Your task to perform on an android device: turn on javascript in the chrome app Image 0: 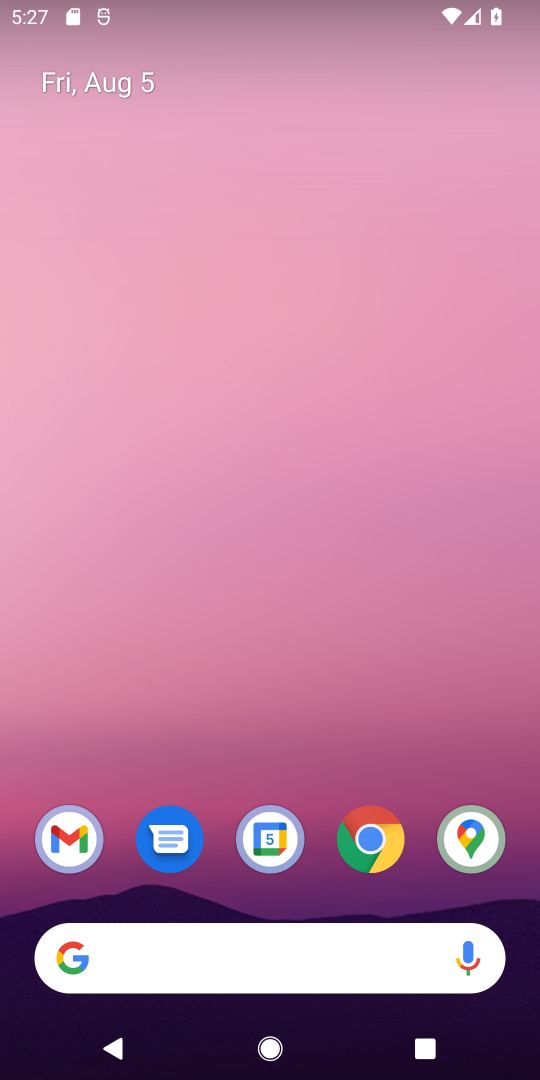
Step 0: click (368, 854)
Your task to perform on an android device: turn on javascript in the chrome app Image 1: 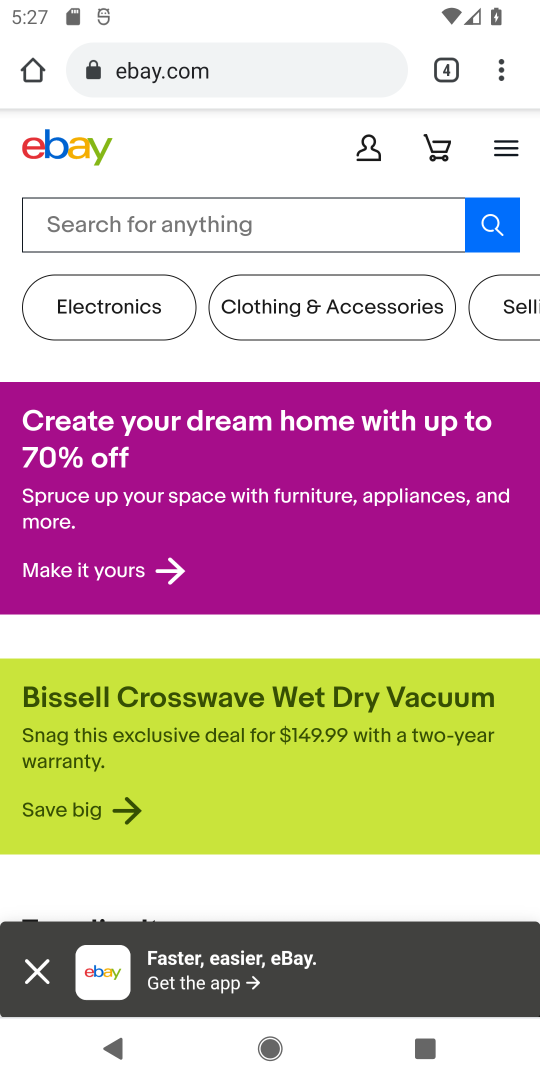
Step 1: drag from (500, 79) to (317, 838)
Your task to perform on an android device: turn on javascript in the chrome app Image 2: 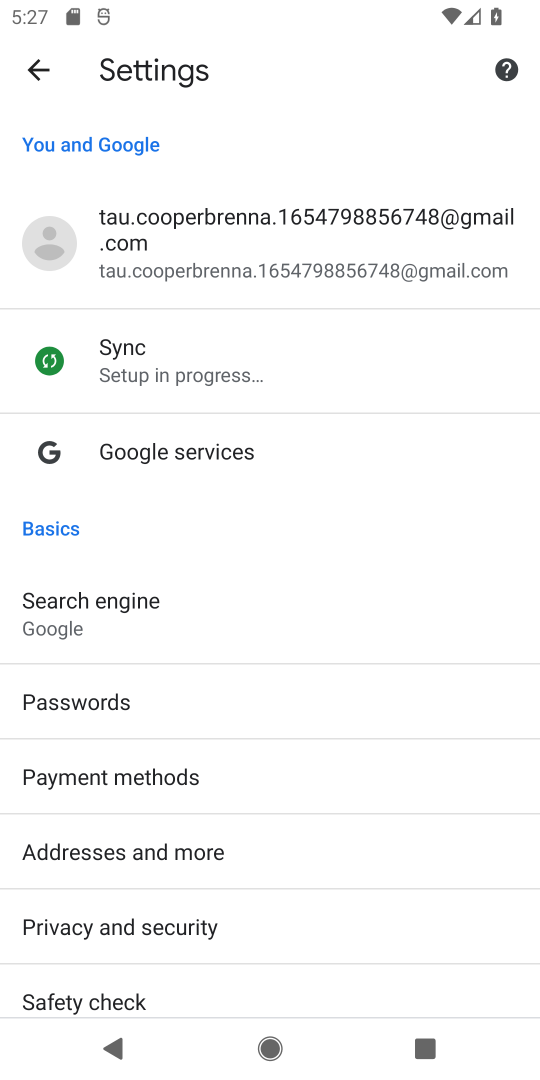
Step 2: drag from (289, 896) to (304, 393)
Your task to perform on an android device: turn on javascript in the chrome app Image 3: 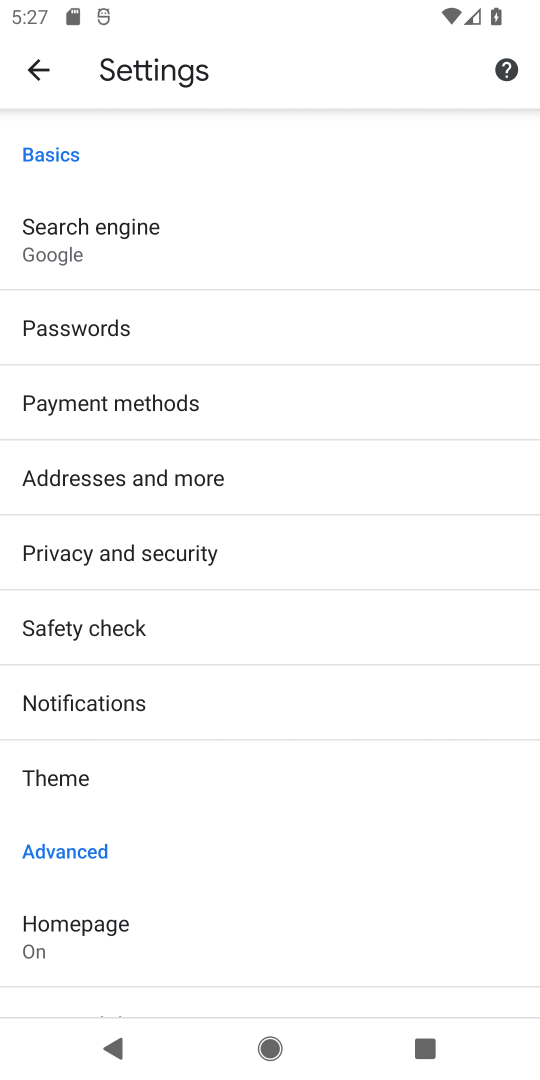
Step 3: drag from (232, 828) to (267, 324)
Your task to perform on an android device: turn on javascript in the chrome app Image 4: 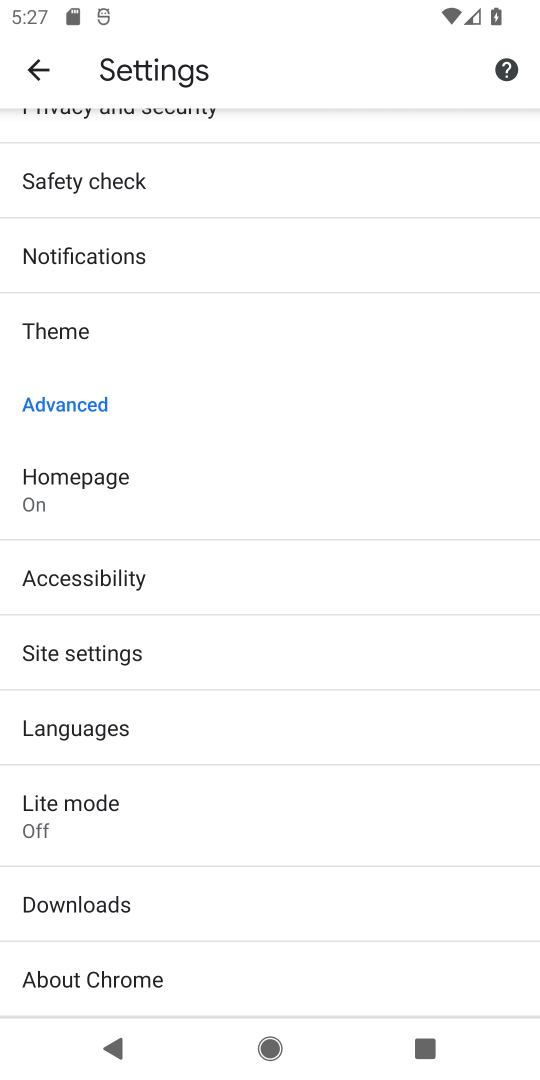
Step 4: click (78, 656)
Your task to perform on an android device: turn on javascript in the chrome app Image 5: 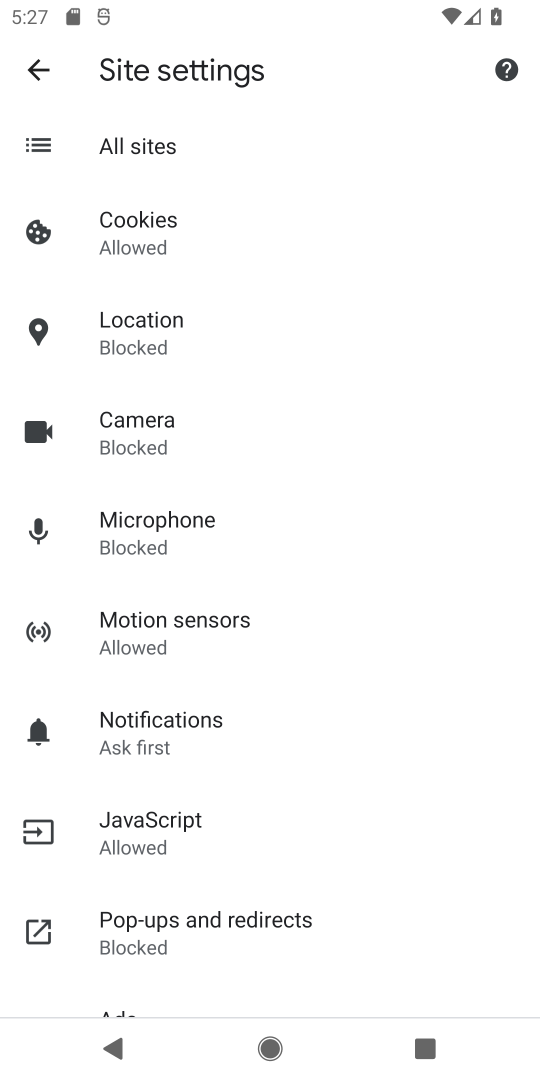
Step 5: click (195, 813)
Your task to perform on an android device: turn on javascript in the chrome app Image 6: 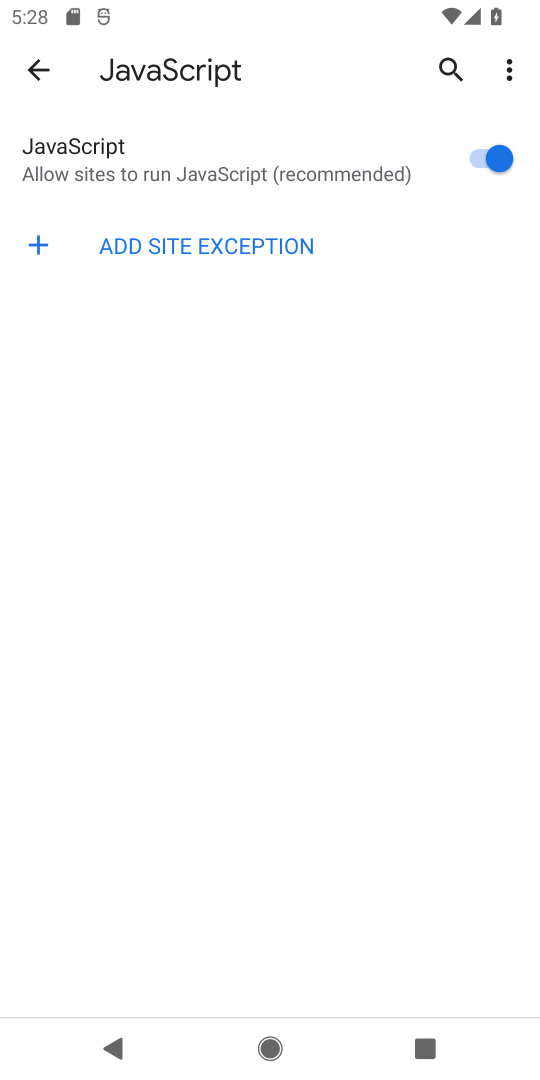
Step 6: task complete